Your task to perform on an android device: change the clock display to analog Image 0: 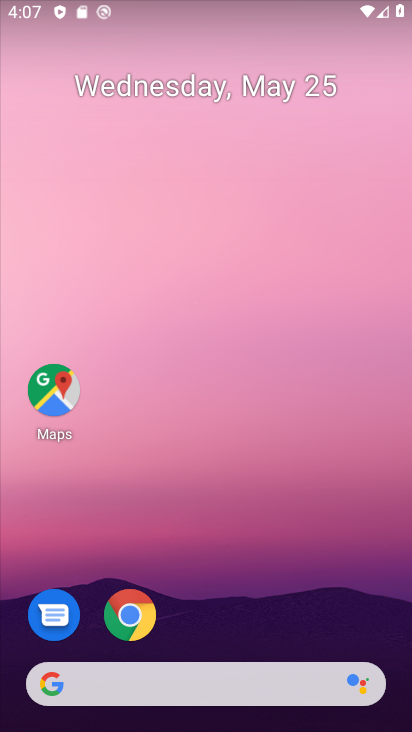
Step 0: drag from (163, 657) to (269, 140)
Your task to perform on an android device: change the clock display to analog Image 1: 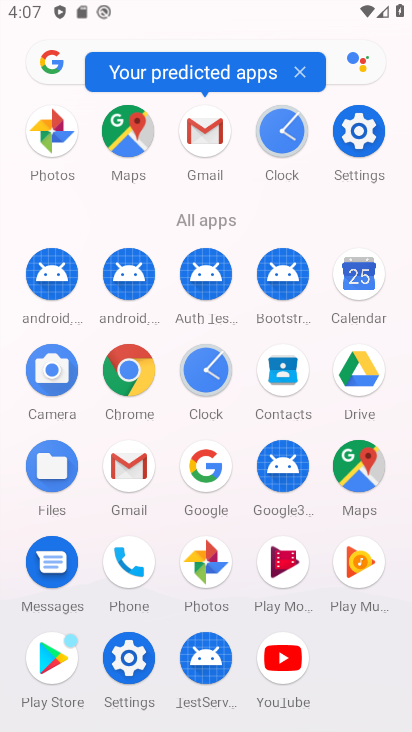
Step 1: click (203, 368)
Your task to perform on an android device: change the clock display to analog Image 2: 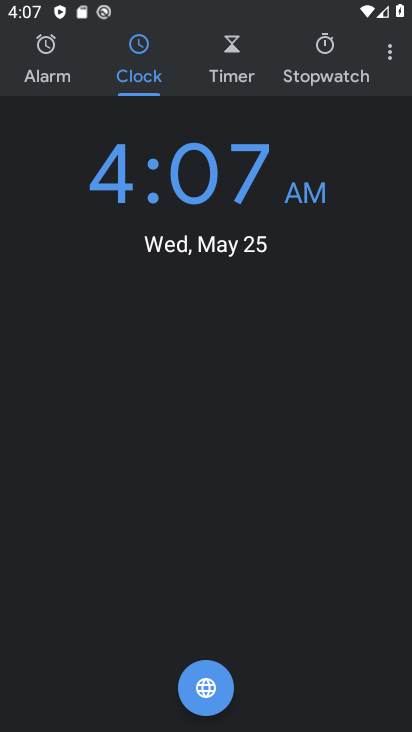
Step 2: click (402, 64)
Your task to perform on an android device: change the clock display to analog Image 3: 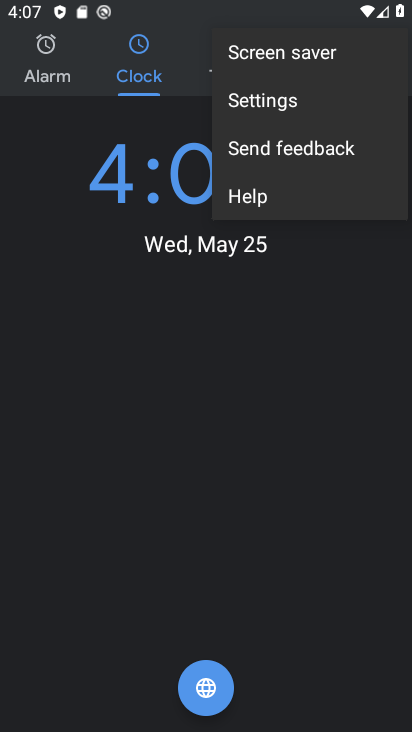
Step 3: click (310, 119)
Your task to perform on an android device: change the clock display to analog Image 4: 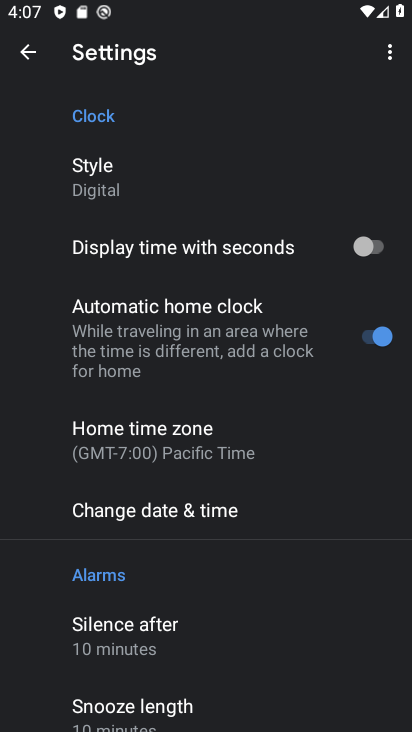
Step 4: click (186, 169)
Your task to perform on an android device: change the clock display to analog Image 5: 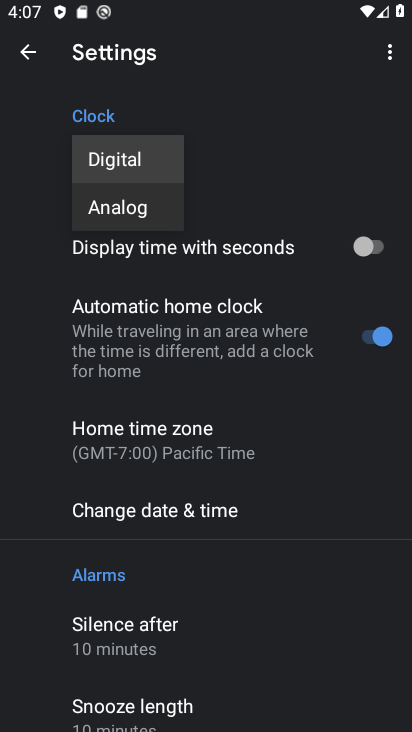
Step 5: click (147, 222)
Your task to perform on an android device: change the clock display to analog Image 6: 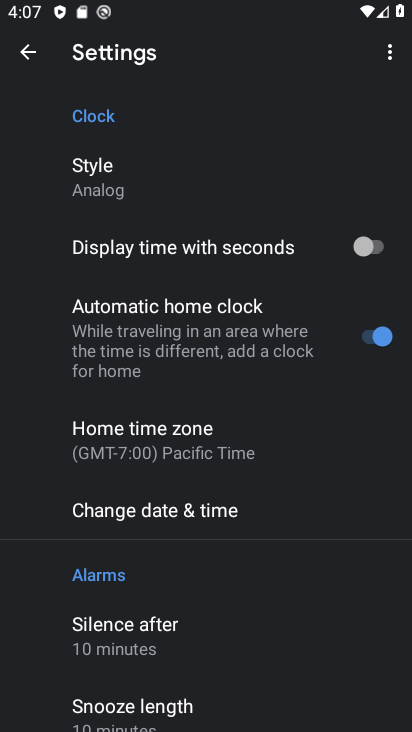
Step 6: task complete